Your task to perform on an android device: What's on my calendar today? Image 0: 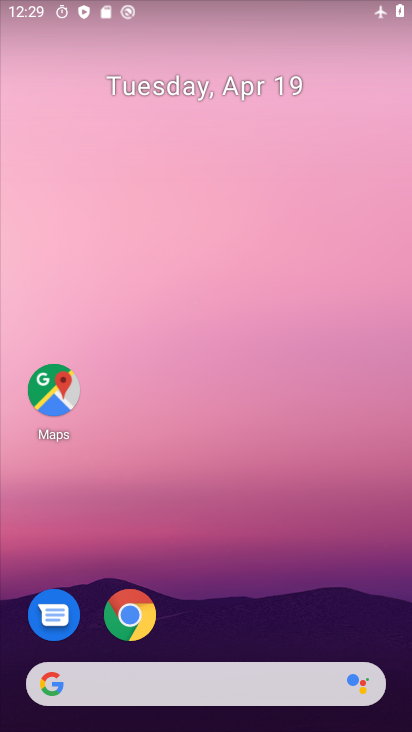
Step 0: drag from (385, 629) to (375, 110)
Your task to perform on an android device: What's on my calendar today? Image 1: 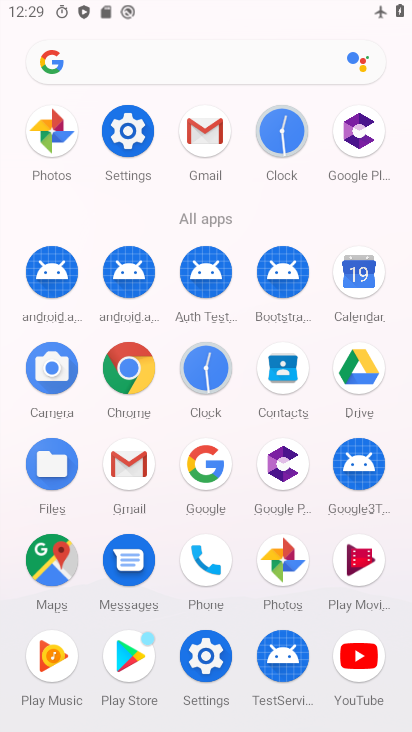
Step 1: click (364, 282)
Your task to perform on an android device: What's on my calendar today? Image 2: 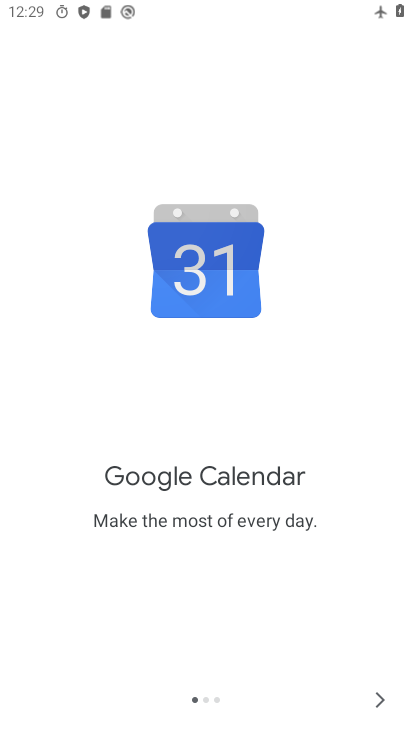
Step 2: click (382, 703)
Your task to perform on an android device: What's on my calendar today? Image 3: 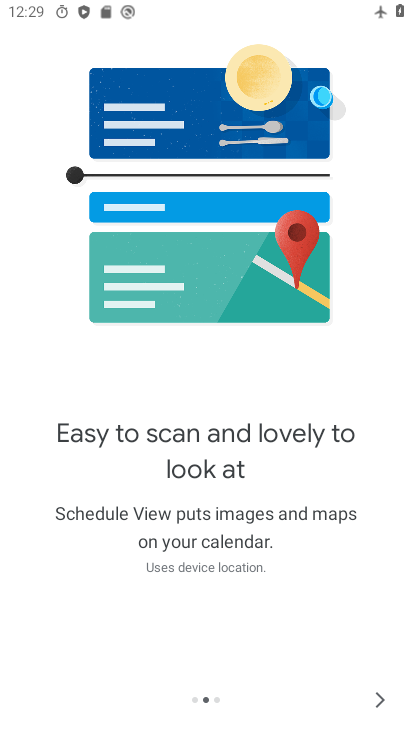
Step 3: click (384, 702)
Your task to perform on an android device: What's on my calendar today? Image 4: 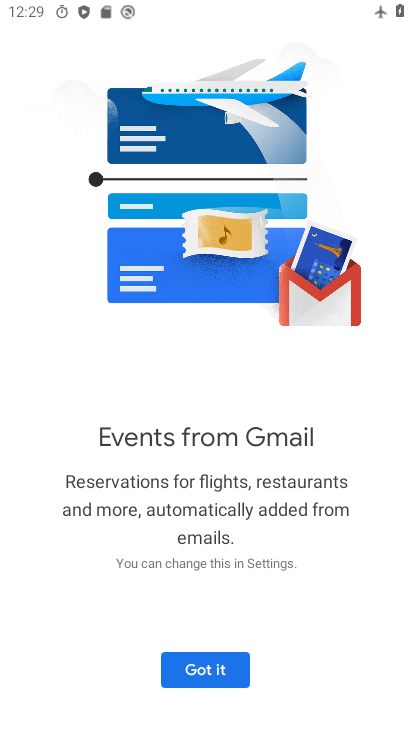
Step 4: click (190, 669)
Your task to perform on an android device: What's on my calendar today? Image 5: 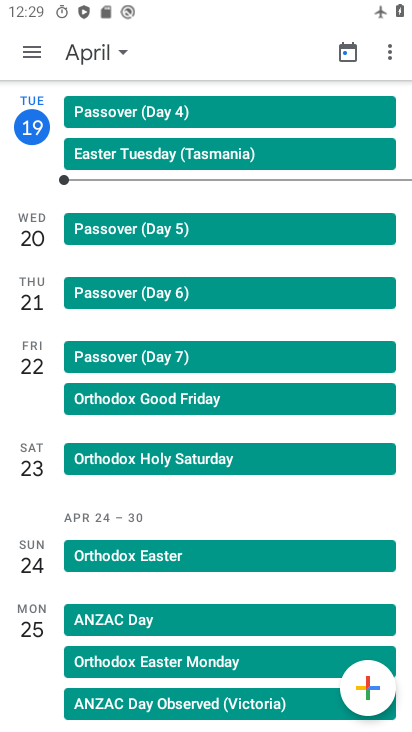
Step 5: click (31, 45)
Your task to perform on an android device: What's on my calendar today? Image 6: 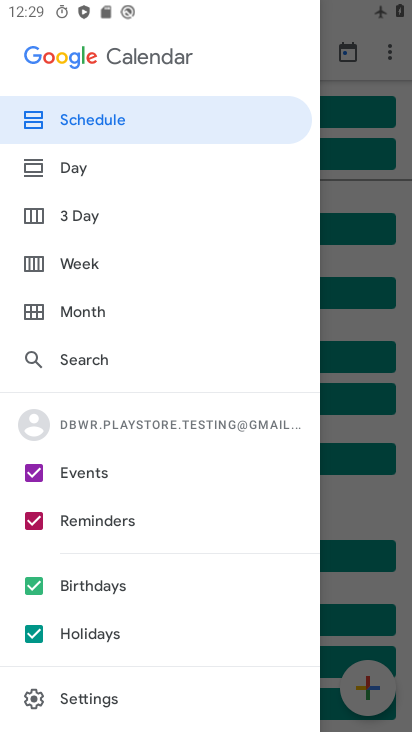
Step 6: click (79, 162)
Your task to perform on an android device: What's on my calendar today? Image 7: 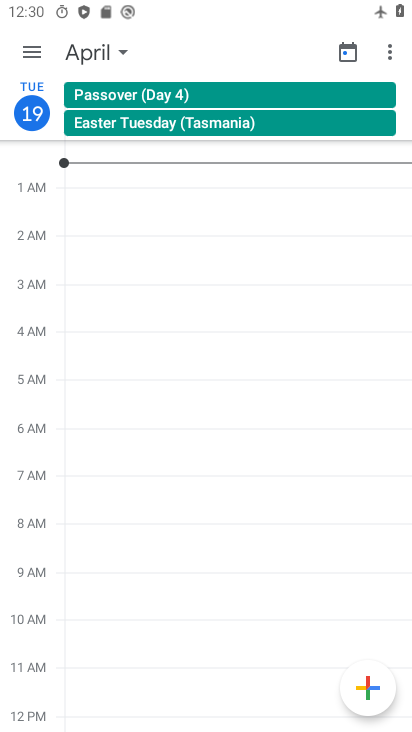
Step 7: task complete